Your task to perform on an android device: install app "Truecaller" Image 0: 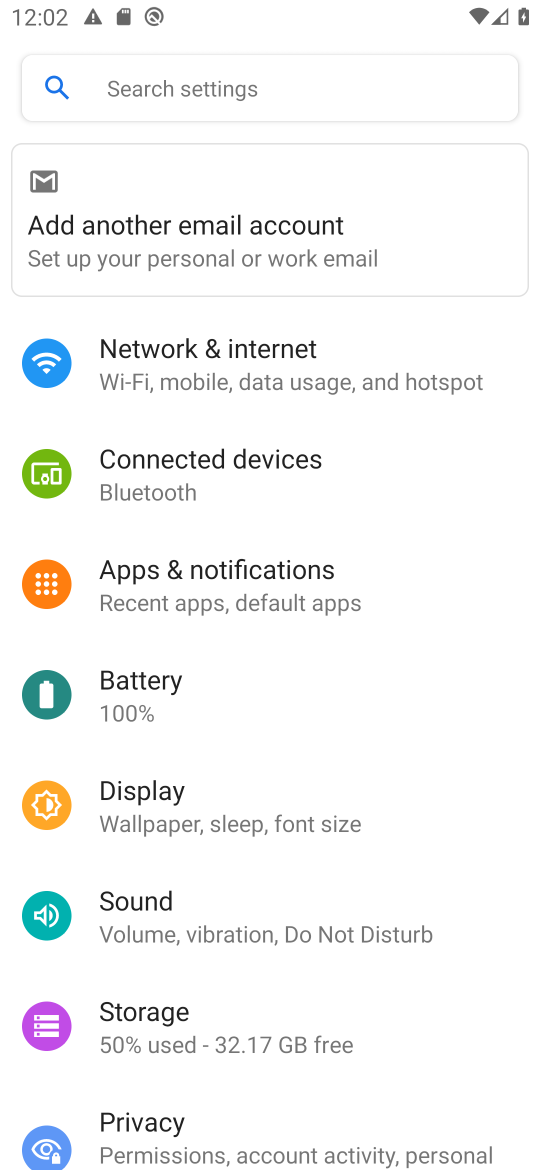
Step 0: press home button
Your task to perform on an android device: install app "Truecaller" Image 1: 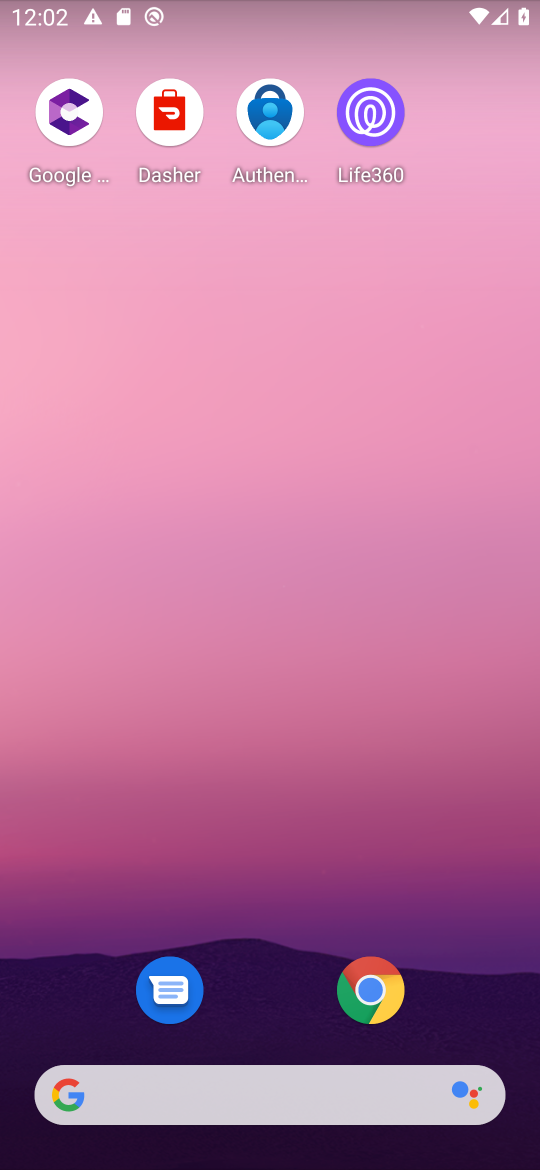
Step 1: drag from (237, 969) to (248, 441)
Your task to perform on an android device: install app "Truecaller" Image 2: 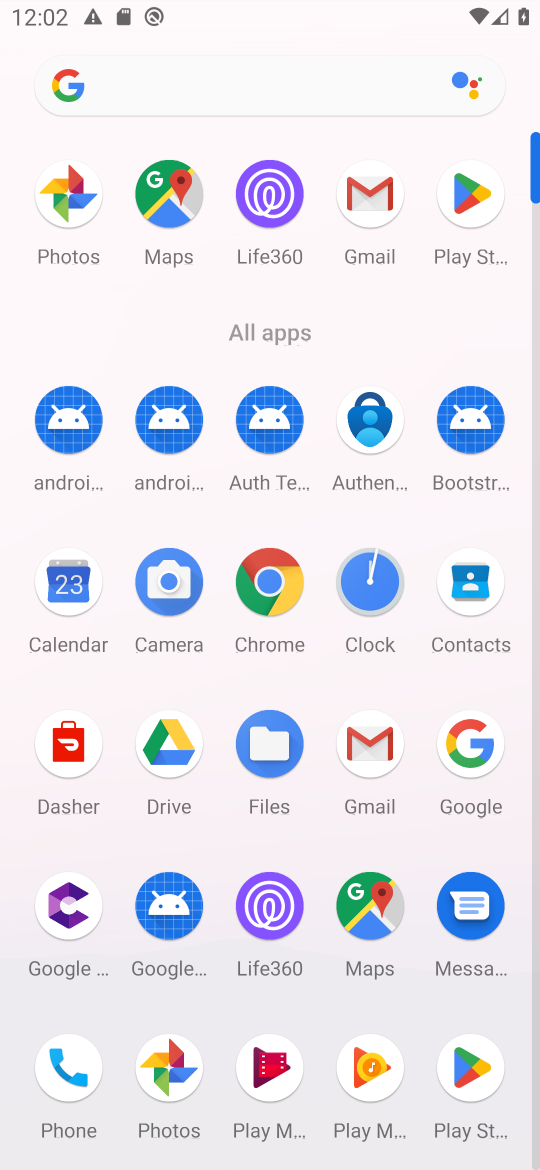
Step 2: click (459, 182)
Your task to perform on an android device: install app "Truecaller" Image 3: 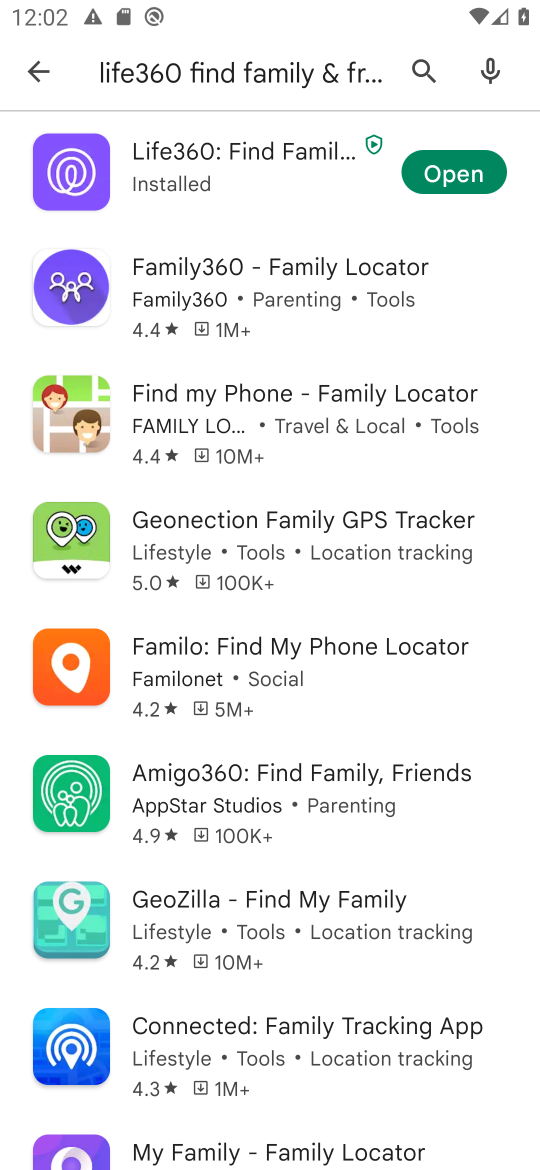
Step 3: click (34, 67)
Your task to perform on an android device: install app "Truecaller" Image 4: 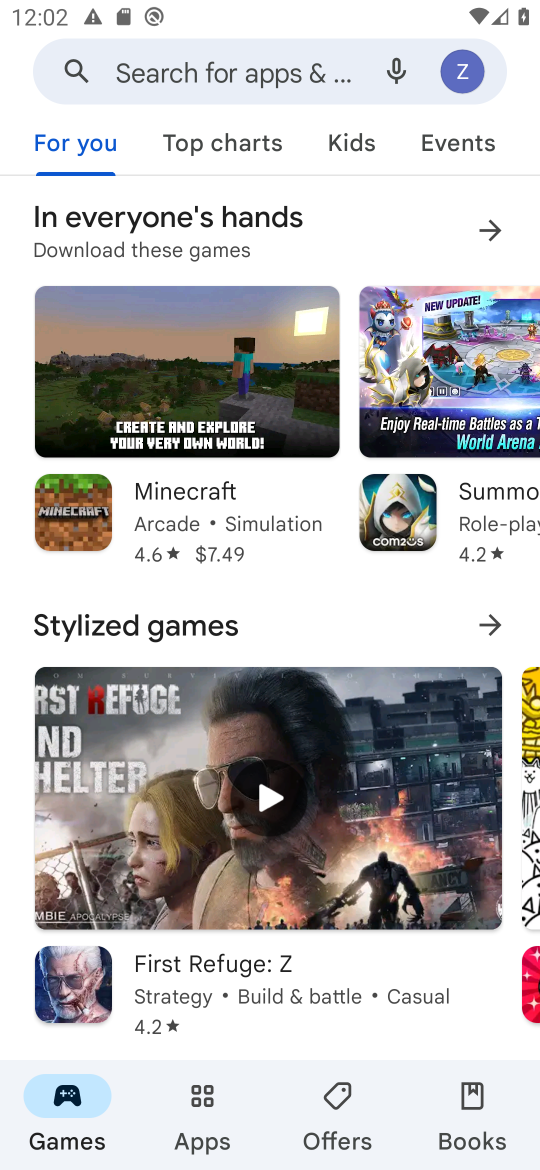
Step 4: click (146, 67)
Your task to perform on an android device: install app "Truecaller" Image 5: 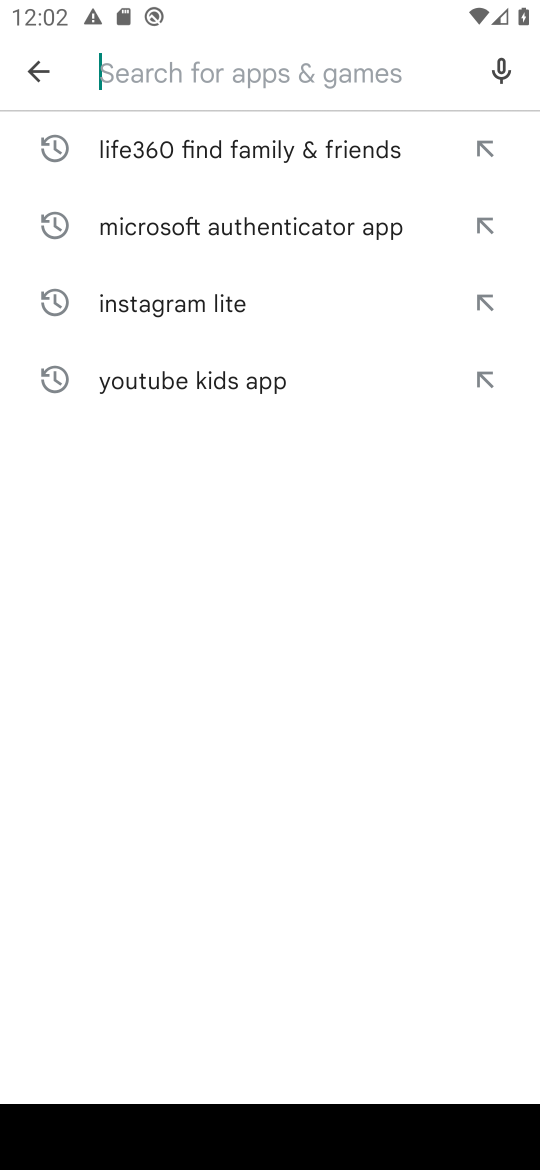
Step 5: type "truecaller "
Your task to perform on an android device: install app "Truecaller" Image 6: 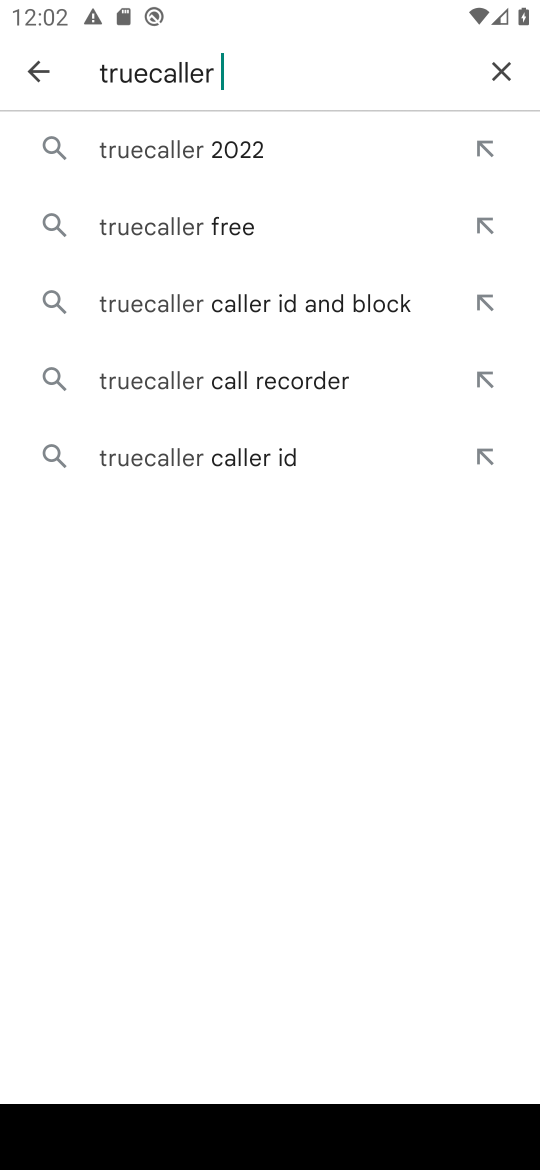
Step 6: click (235, 223)
Your task to perform on an android device: install app "Truecaller" Image 7: 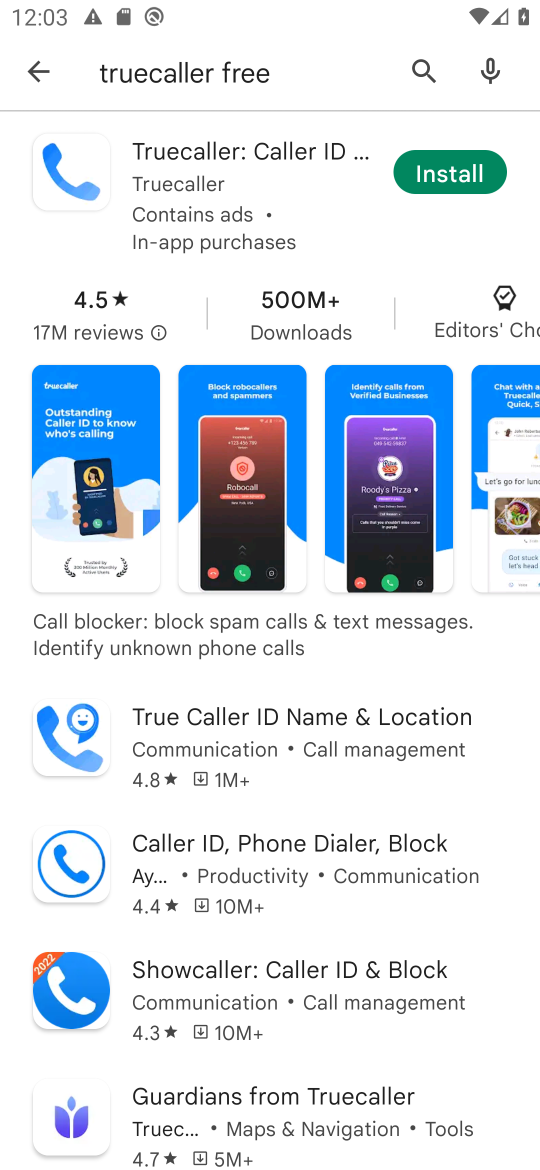
Step 7: click (449, 175)
Your task to perform on an android device: install app "Truecaller" Image 8: 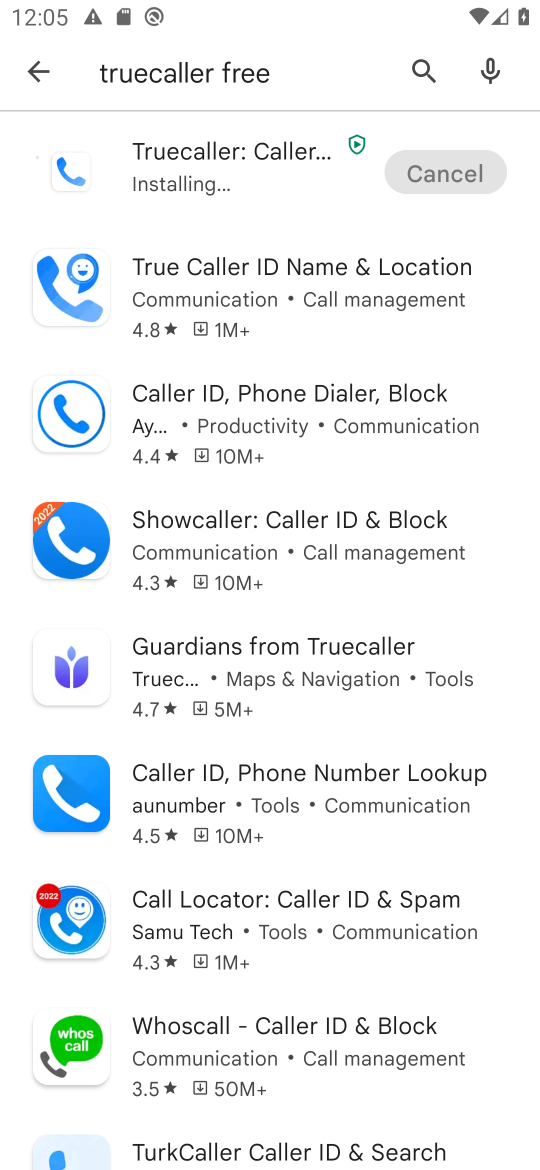
Step 8: click (242, 177)
Your task to perform on an android device: install app "Truecaller" Image 9: 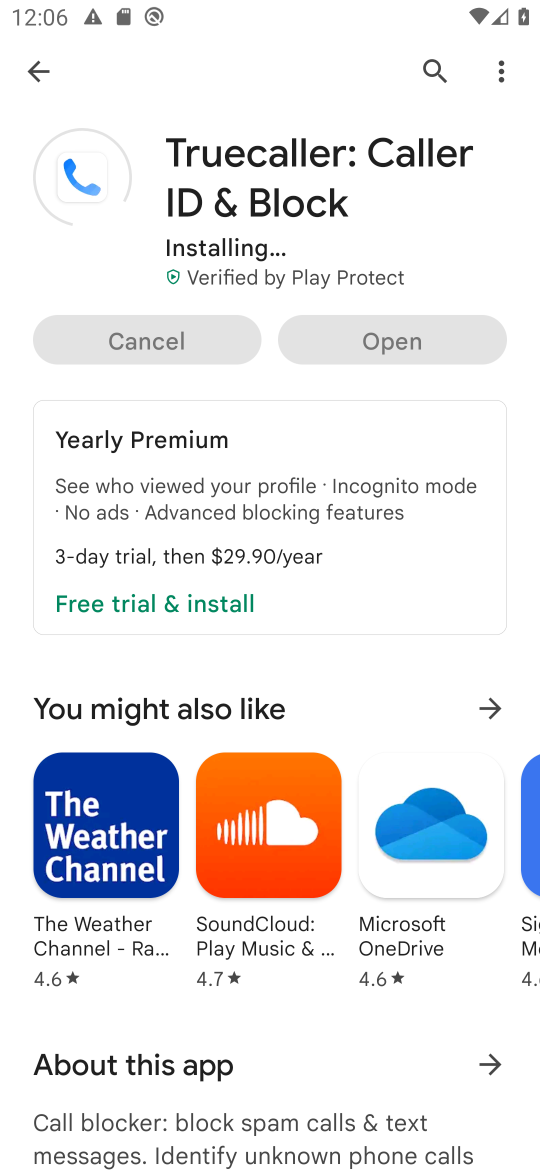
Step 9: task complete